Your task to perform on an android device: Open network settings Image 0: 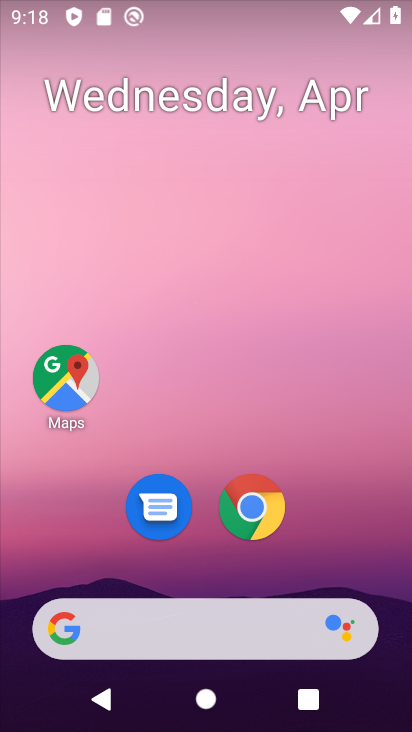
Step 0: drag from (328, 464) to (346, 107)
Your task to perform on an android device: Open network settings Image 1: 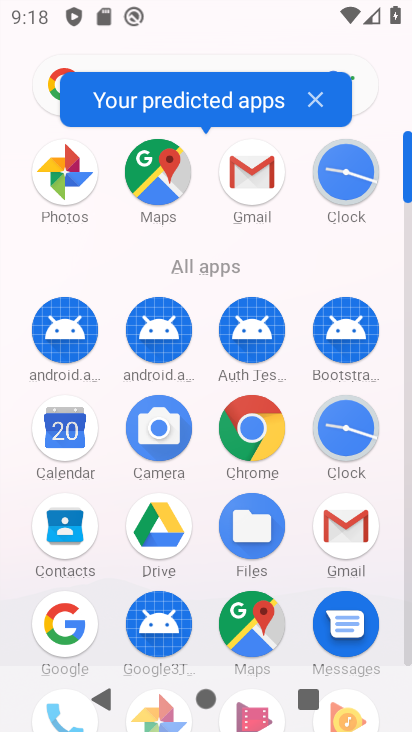
Step 1: drag from (213, 553) to (192, 239)
Your task to perform on an android device: Open network settings Image 2: 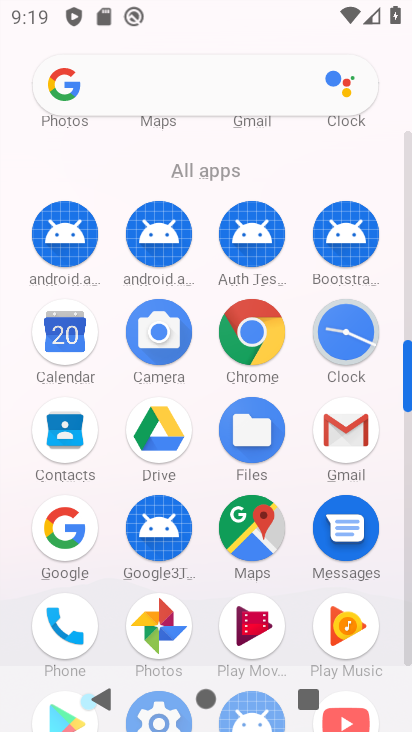
Step 2: drag from (199, 577) to (209, 334)
Your task to perform on an android device: Open network settings Image 3: 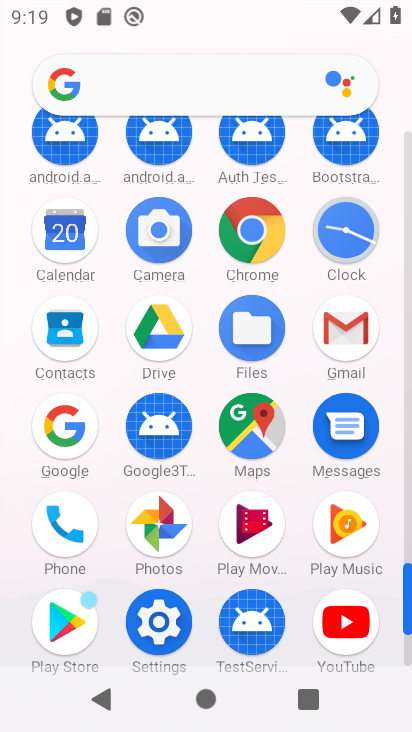
Step 3: click (167, 638)
Your task to perform on an android device: Open network settings Image 4: 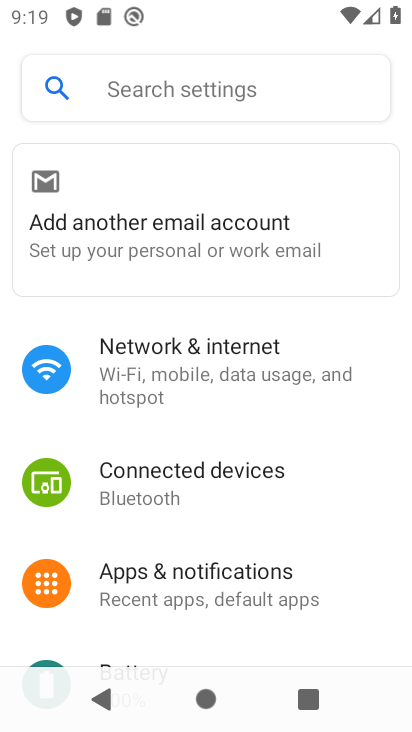
Step 4: click (208, 396)
Your task to perform on an android device: Open network settings Image 5: 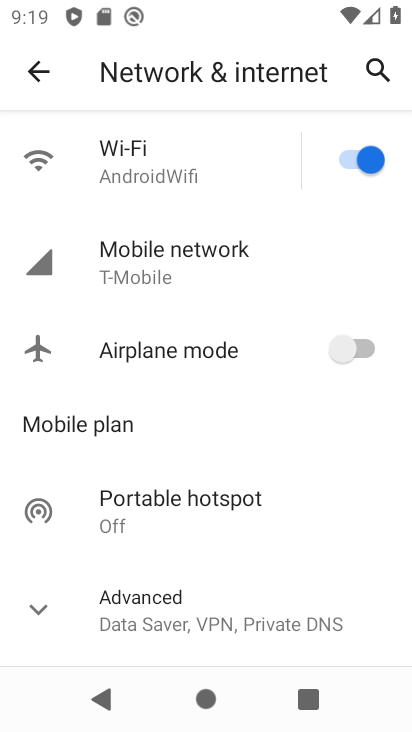
Step 5: task complete